Your task to perform on an android device: set the timer Image 0: 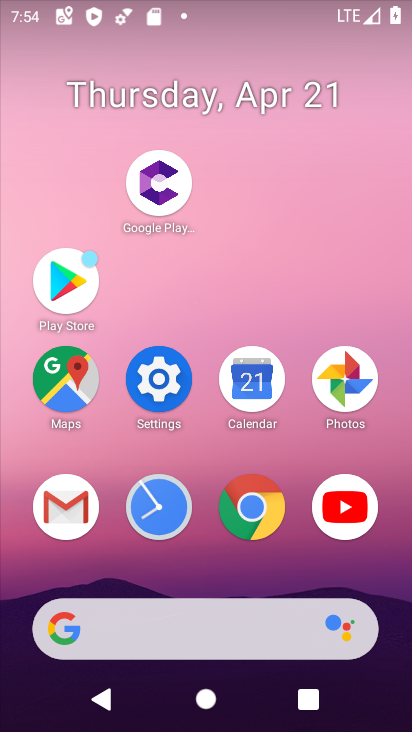
Step 0: click (163, 510)
Your task to perform on an android device: set the timer Image 1: 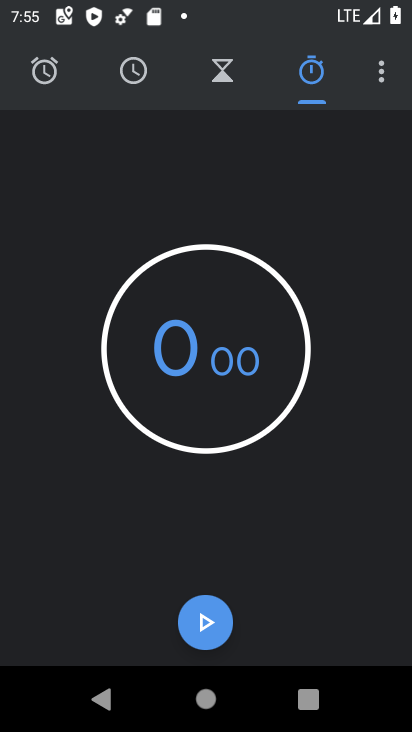
Step 1: click (224, 76)
Your task to perform on an android device: set the timer Image 2: 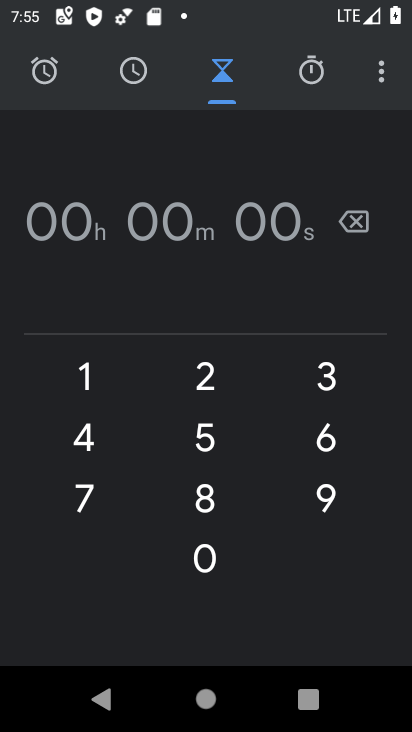
Step 2: click (94, 371)
Your task to perform on an android device: set the timer Image 3: 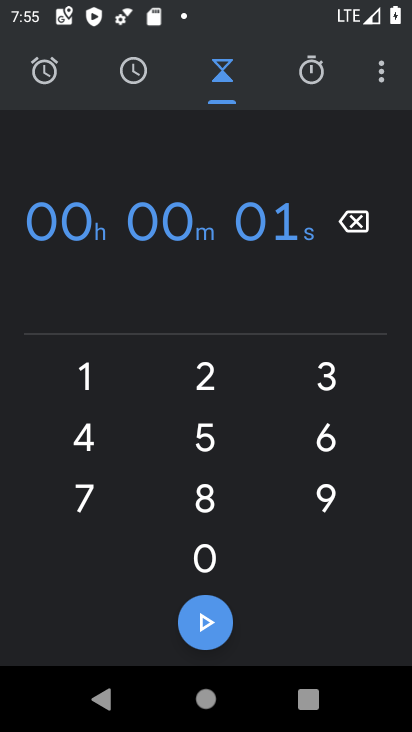
Step 3: click (94, 371)
Your task to perform on an android device: set the timer Image 4: 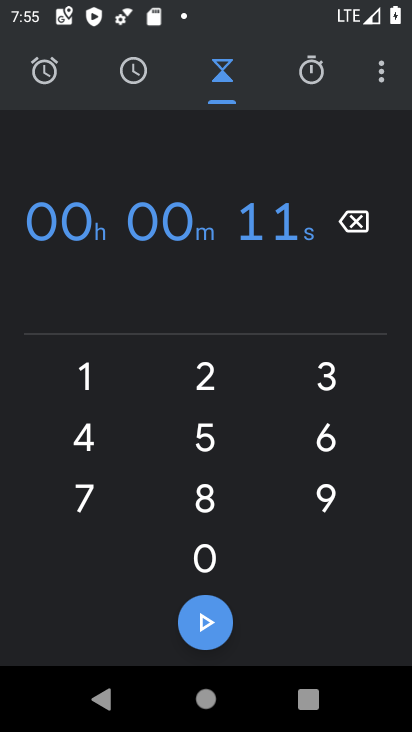
Step 4: click (94, 371)
Your task to perform on an android device: set the timer Image 5: 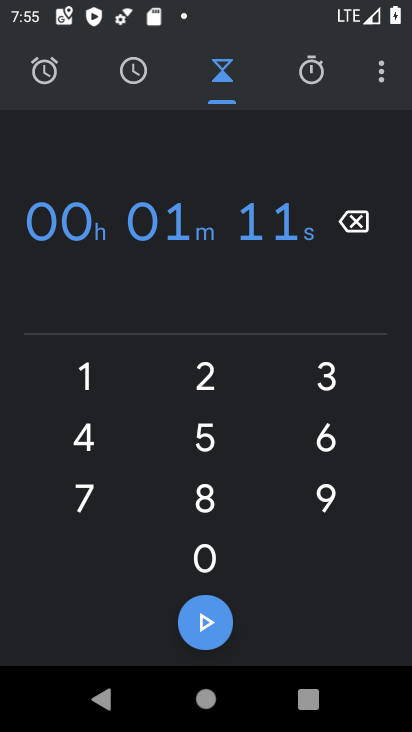
Step 5: click (91, 384)
Your task to perform on an android device: set the timer Image 6: 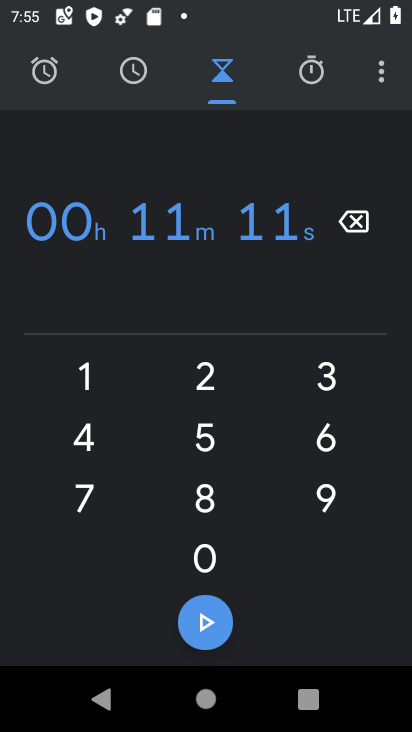
Step 6: click (91, 384)
Your task to perform on an android device: set the timer Image 7: 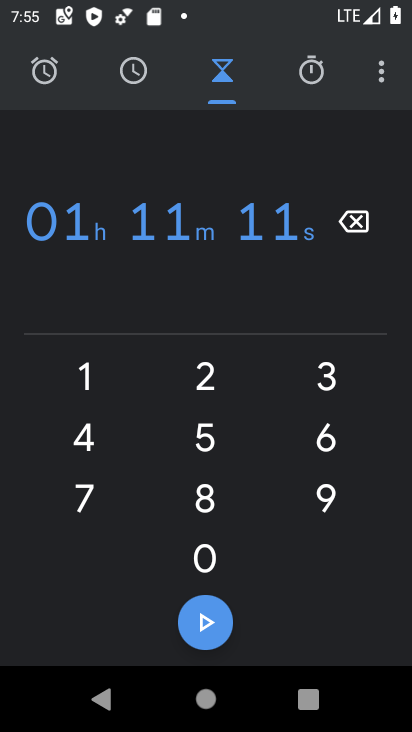
Step 7: task complete